Your task to perform on an android device: Go to Amazon Image 0: 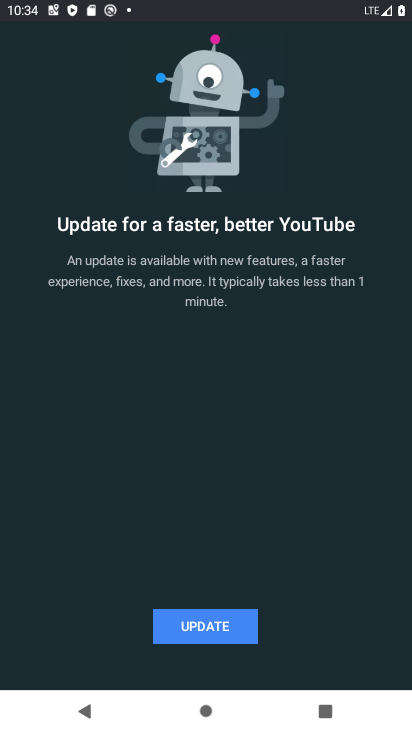
Step 0: press back button
Your task to perform on an android device: Go to Amazon Image 1: 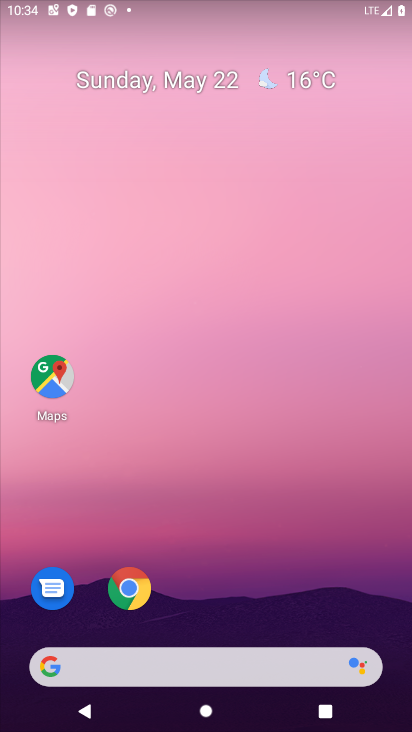
Step 1: click (139, 589)
Your task to perform on an android device: Go to Amazon Image 2: 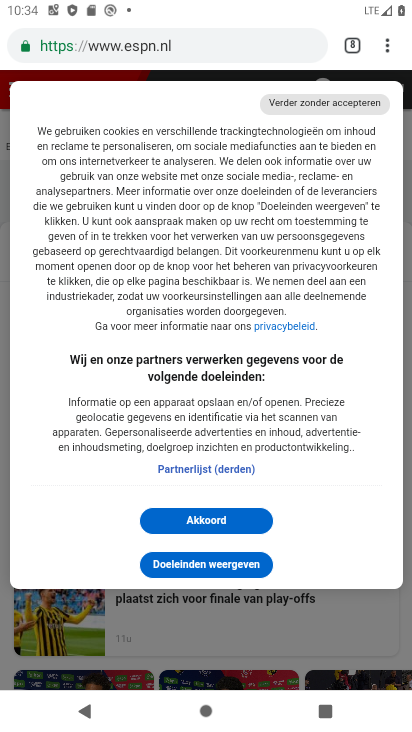
Step 2: click (216, 523)
Your task to perform on an android device: Go to Amazon Image 3: 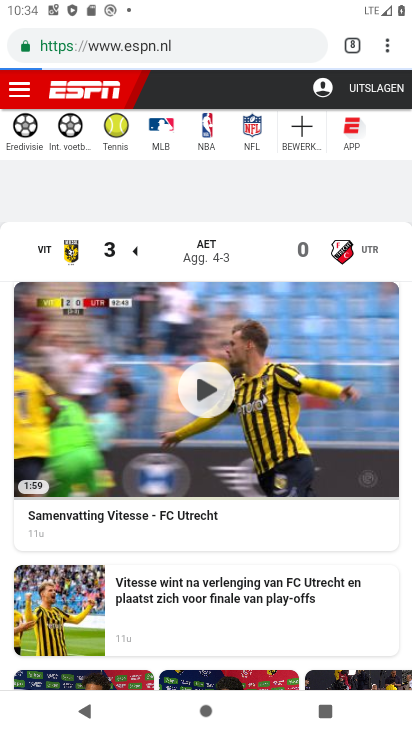
Step 3: click (358, 40)
Your task to perform on an android device: Go to Amazon Image 4: 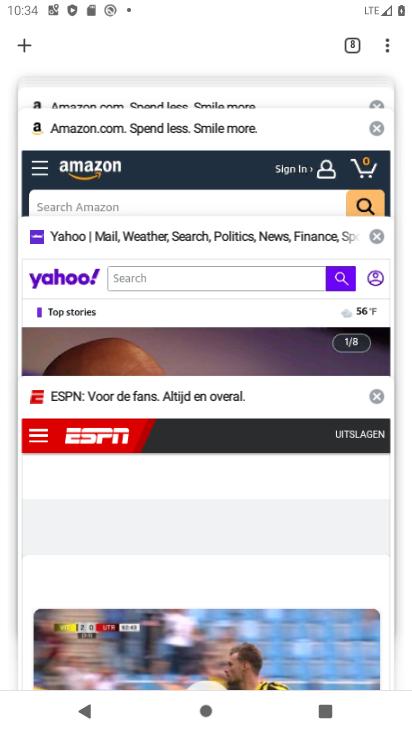
Step 4: click (142, 161)
Your task to perform on an android device: Go to Amazon Image 5: 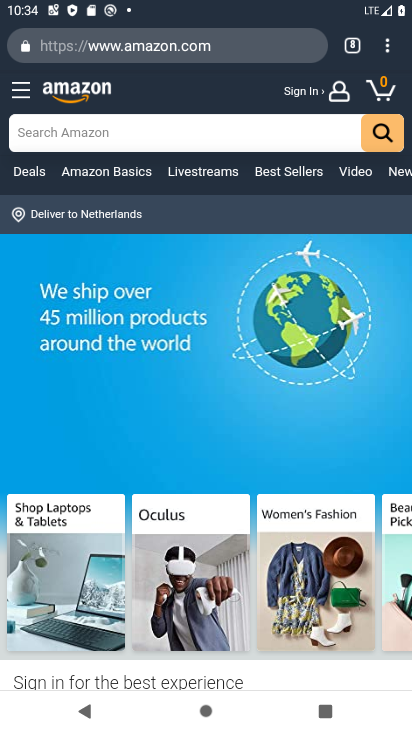
Step 5: task complete